Your task to perform on an android device: Check the news Image 0: 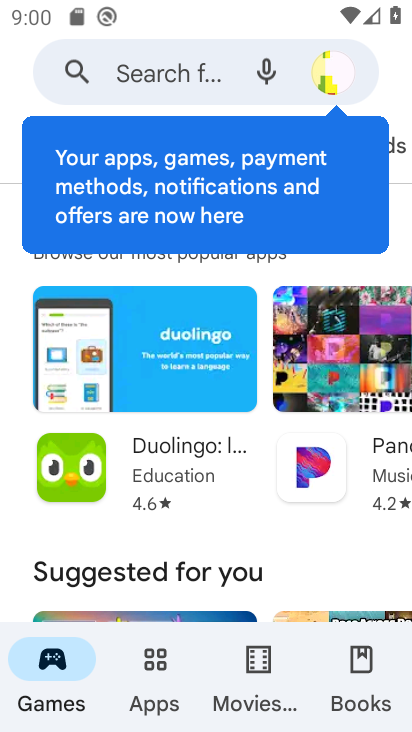
Step 0: press home button
Your task to perform on an android device: Check the news Image 1: 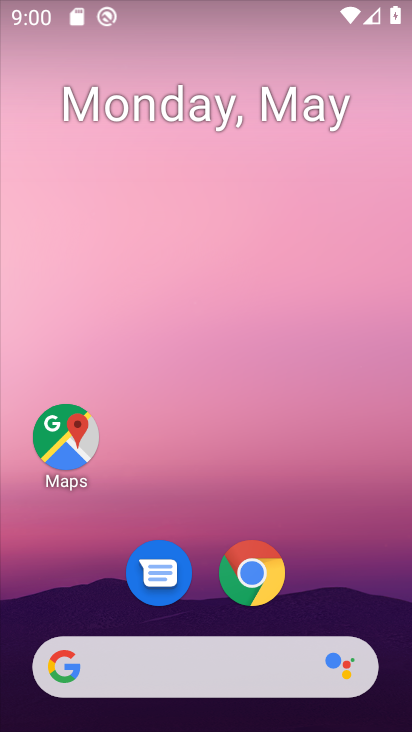
Step 1: task complete